Your task to perform on an android device: set the timer Image 0: 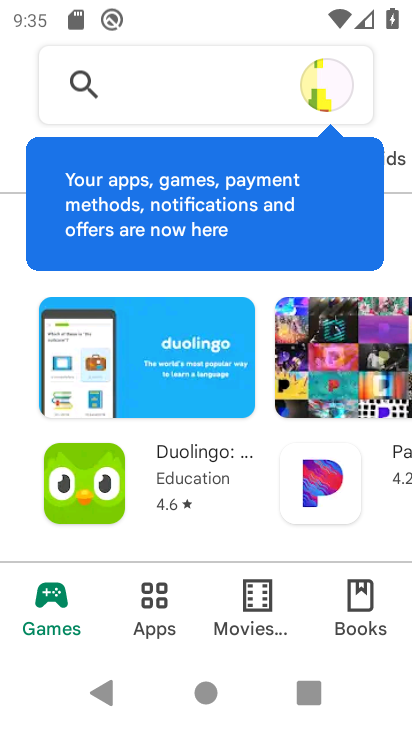
Step 0: press home button
Your task to perform on an android device: set the timer Image 1: 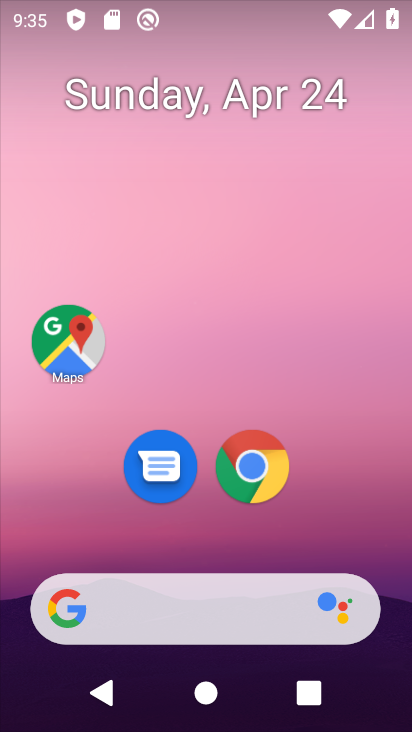
Step 1: drag from (343, 475) to (319, 26)
Your task to perform on an android device: set the timer Image 2: 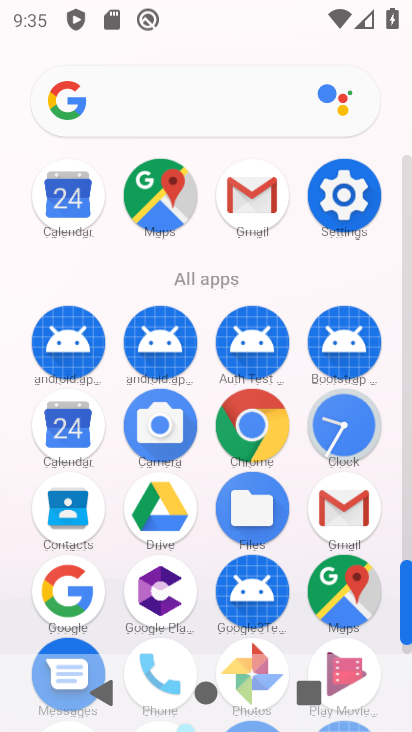
Step 2: click (343, 440)
Your task to perform on an android device: set the timer Image 3: 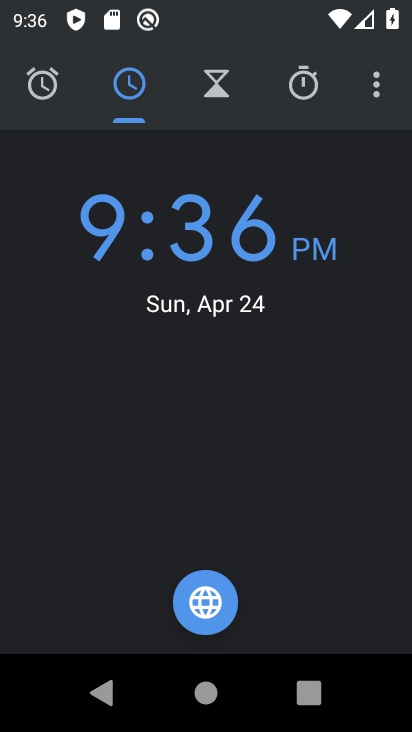
Step 3: click (227, 75)
Your task to perform on an android device: set the timer Image 4: 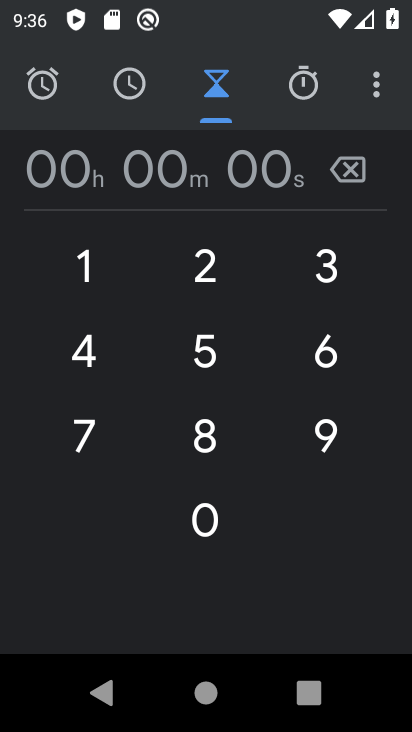
Step 4: click (222, 265)
Your task to perform on an android device: set the timer Image 5: 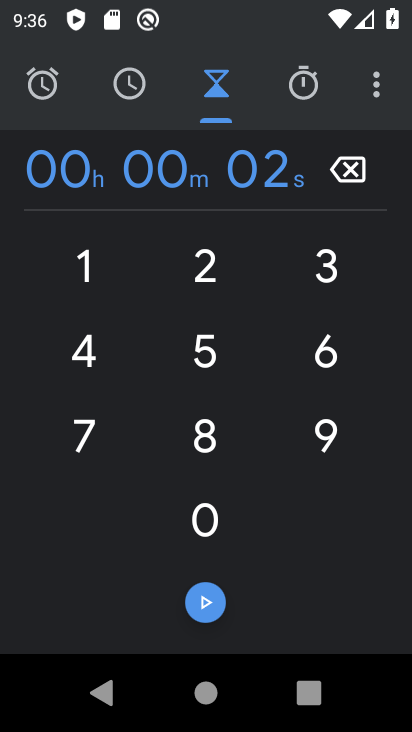
Step 5: click (222, 264)
Your task to perform on an android device: set the timer Image 6: 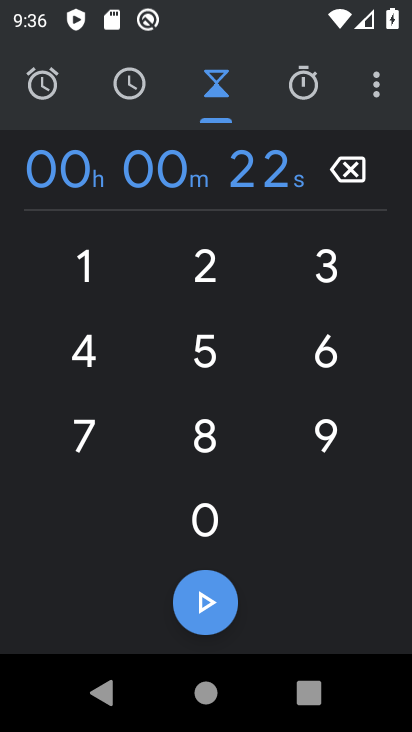
Step 6: task complete